Your task to perform on an android device: Go to Yahoo.com Image 0: 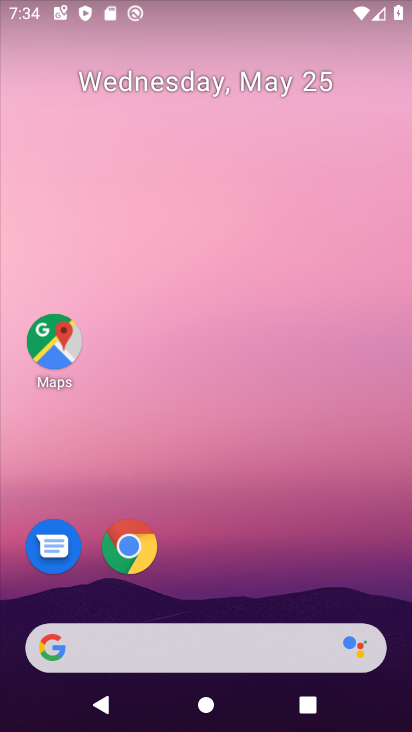
Step 0: press home button
Your task to perform on an android device: Go to Yahoo.com Image 1: 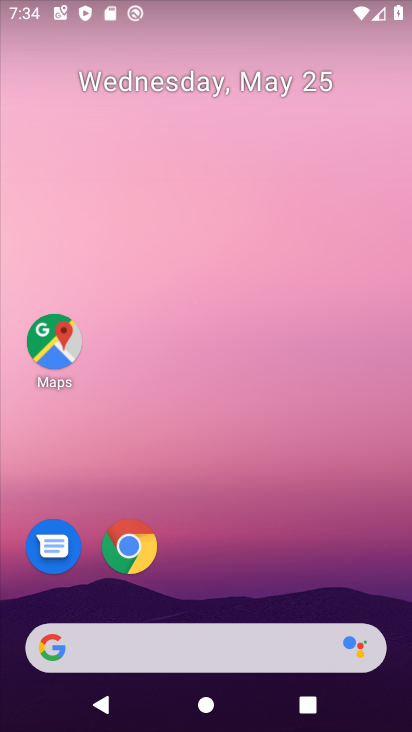
Step 1: click (134, 551)
Your task to perform on an android device: Go to Yahoo.com Image 2: 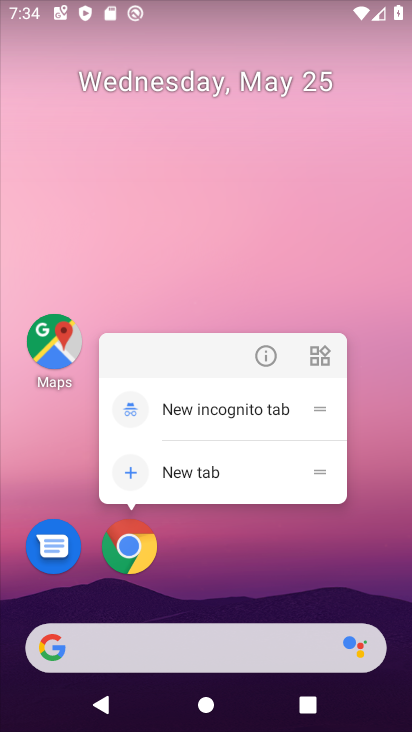
Step 2: click (140, 554)
Your task to perform on an android device: Go to Yahoo.com Image 3: 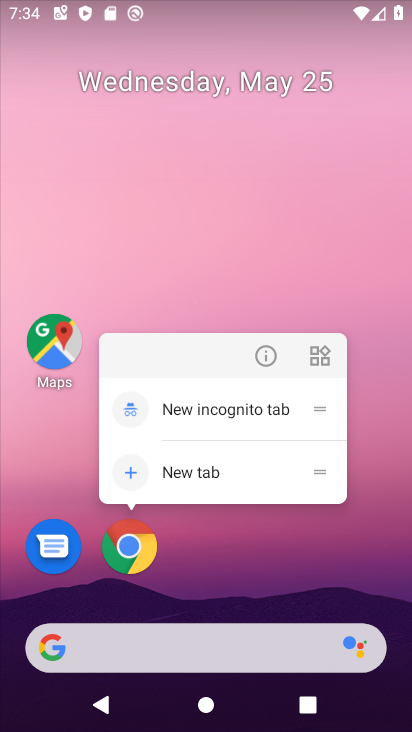
Step 3: click (130, 548)
Your task to perform on an android device: Go to Yahoo.com Image 4: 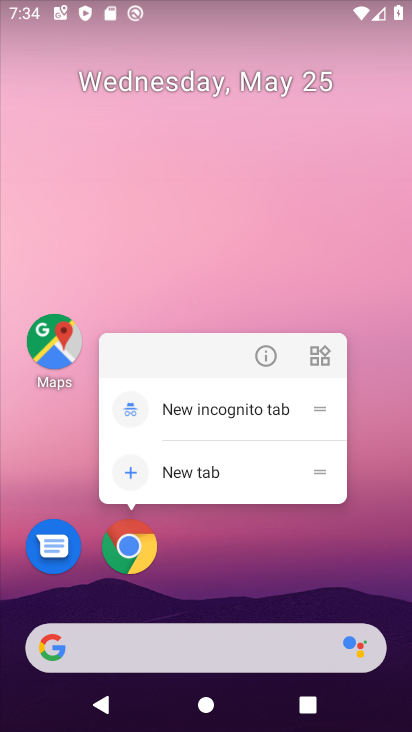
Step 4: click (127, 556)
Your task to perform on an android device: Go to Yahoo.com Image 5: 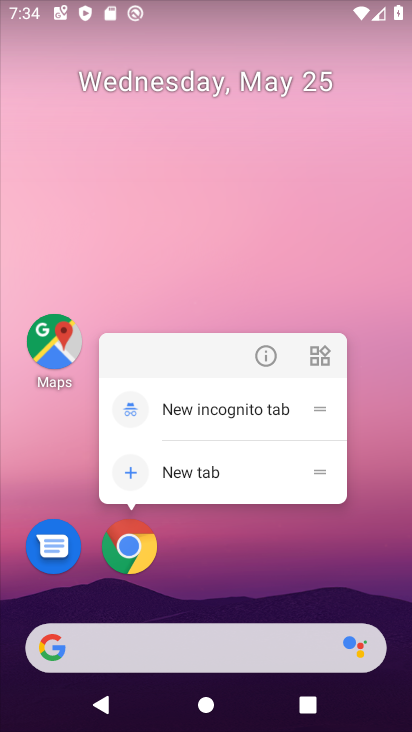
Step 5: click (133, 551)
Your task to perform on an android device: Go to Yahoo.com Image 6: 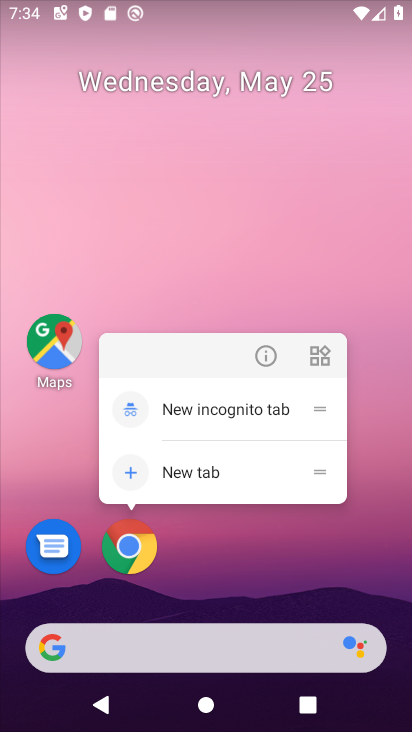
Step 6: click (143, 555)
Your task to perform on an android device: Go to Yahoo.com Image 7: 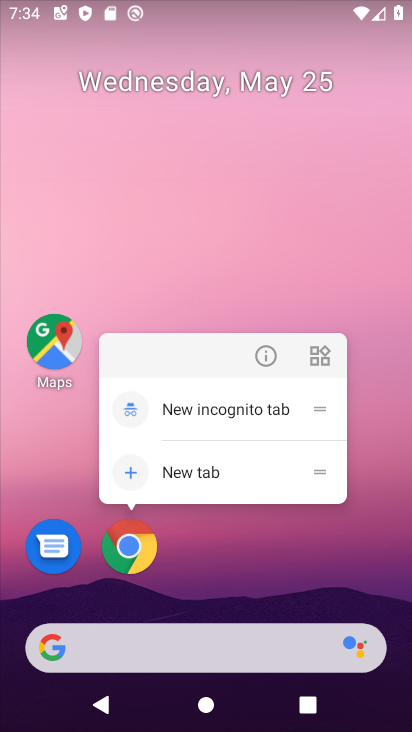
Step 7: click (140, 556)
Your task to perform on an android device: Go to Yahoo.com Image 8: 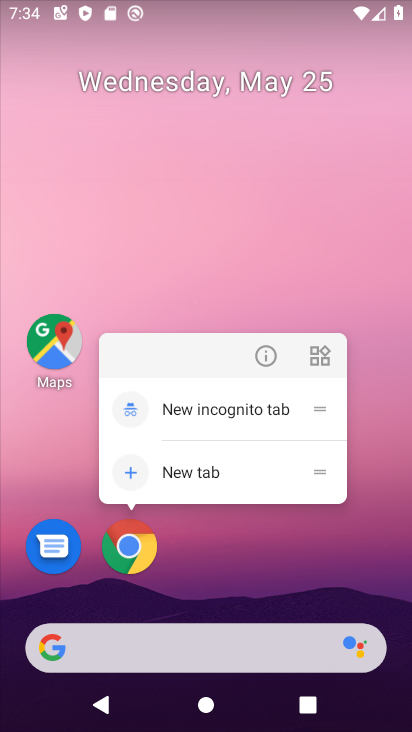
Step 8: click (126, 558)
Your task to perform on an android device: Go to Yahoo.com Image 9: 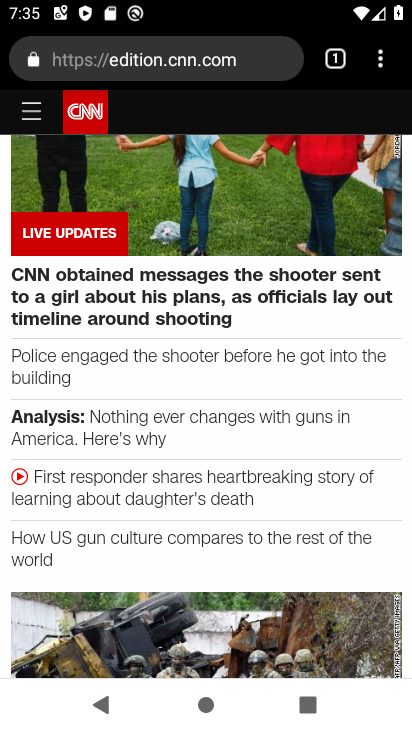
Step 9: drag from (383, 58) to (266, 102)
Your task to perform on an android device: Go to Yahoo.com Image 10: 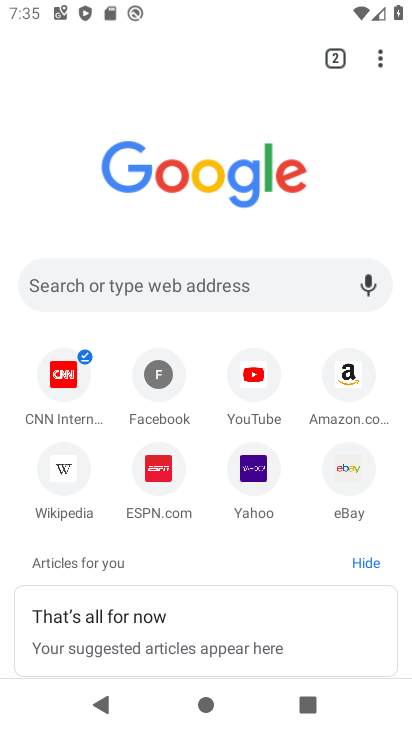
Step 10: click (251, 474)
Your task to perform on an android device: Go to Yahoo.com Image 11: 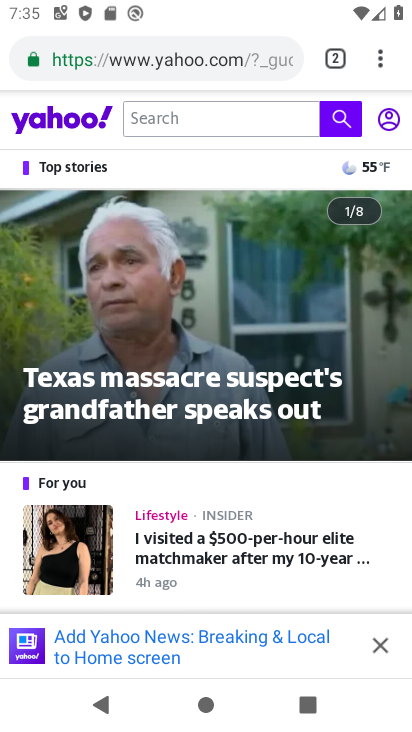
Step 11: task complete